Your task to perform on an android device: Is it going to rain today? Image 0: 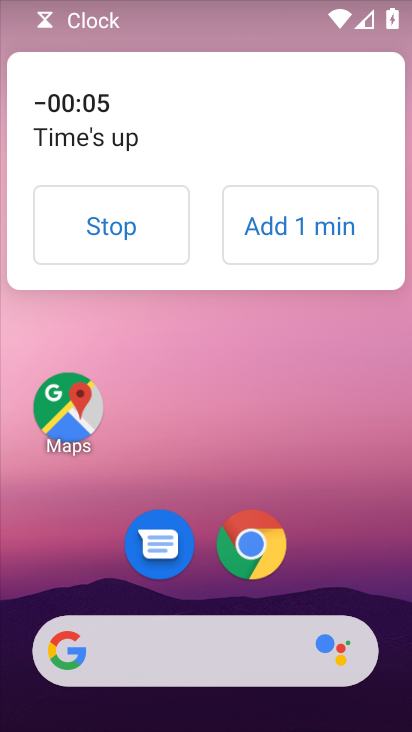
Step 0: click (64, 232)
Your task to perform on an android device: Is it going to rain today? Image 1: 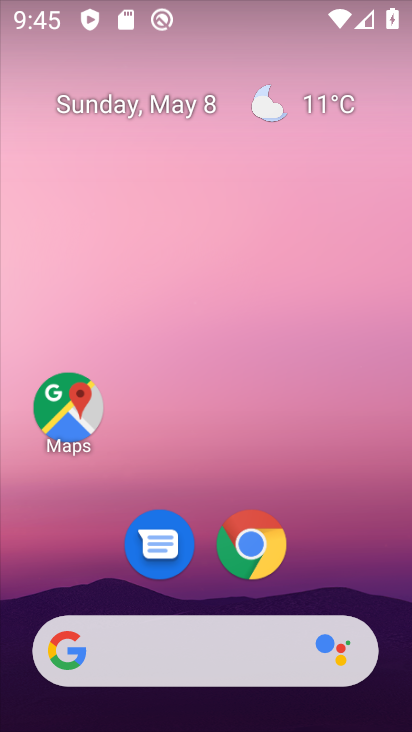
Step 1: click (250, 540)
Your task to perform on an android device: Is it going to rain today? Image 2: 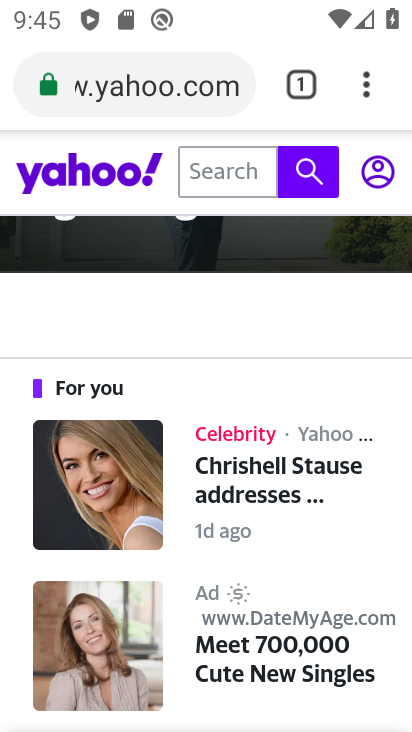
Step 2: click (206, 76)
Your task to perform on an android device: Is it going to rain today? Image 3: 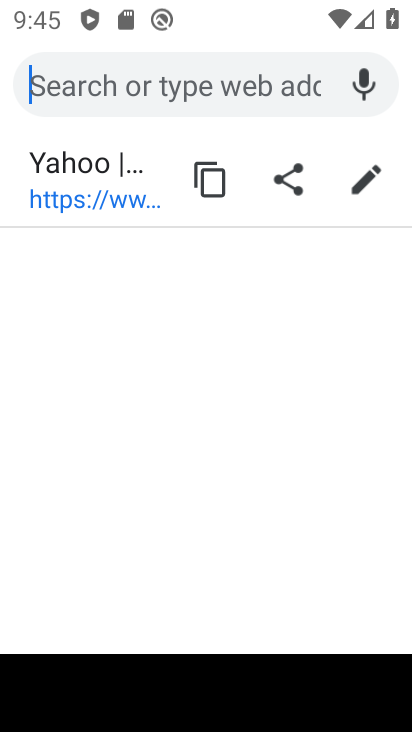
Step 3: type "Is it going to rain today?"
Your task to perform on an android device: Is it going to rain today? Image 4: 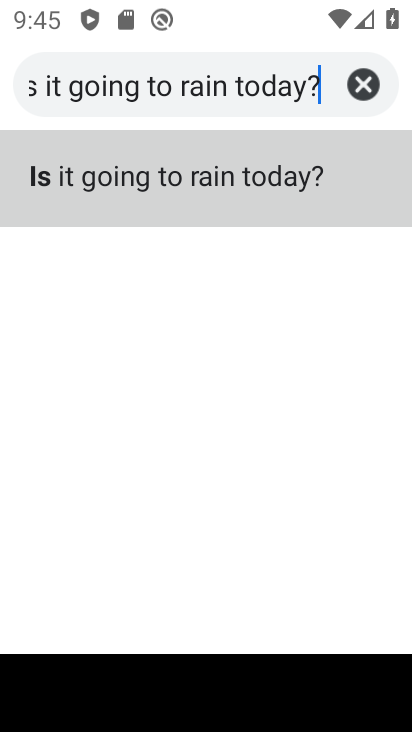
Step 4: click (114, 163)
Your task to perform on an android device: Is it going to rain today? Image 5: 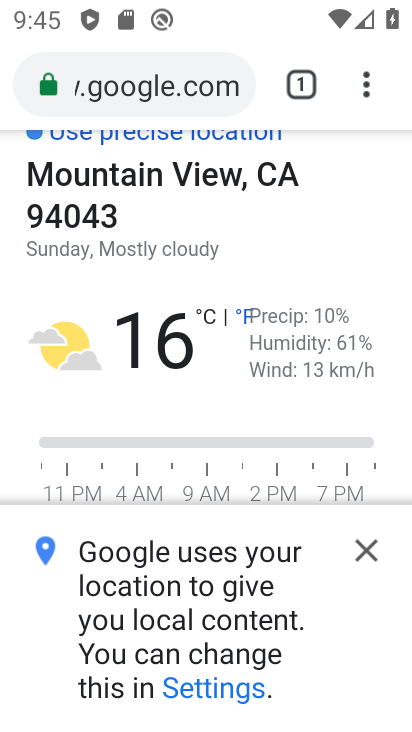
Step 5: task complete